Your task to perform on an android device: Go to CNN.com Image 0: 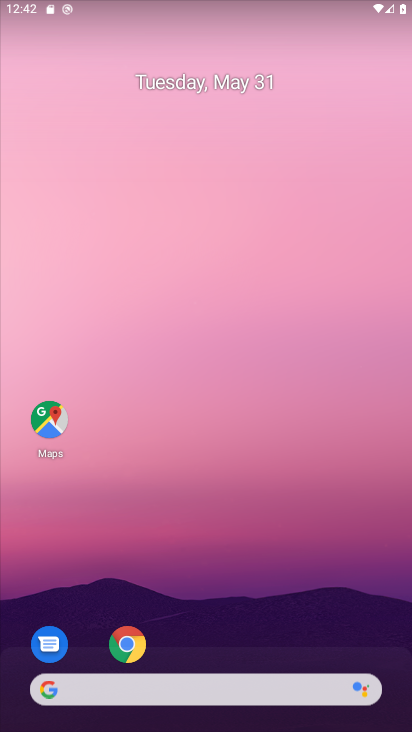
Step 0: click (124, 647)
Your task to perform on an android device: Go to CNN.com Image 1: 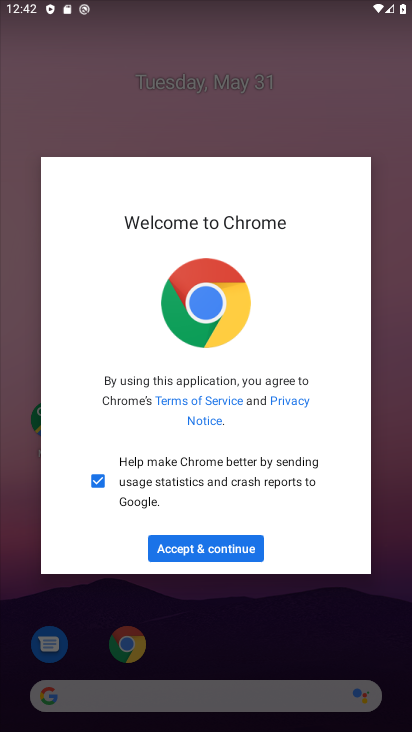
Step 1: click (245, 552)
Your task to perform on an android device: Go to CNN.com Image 2: 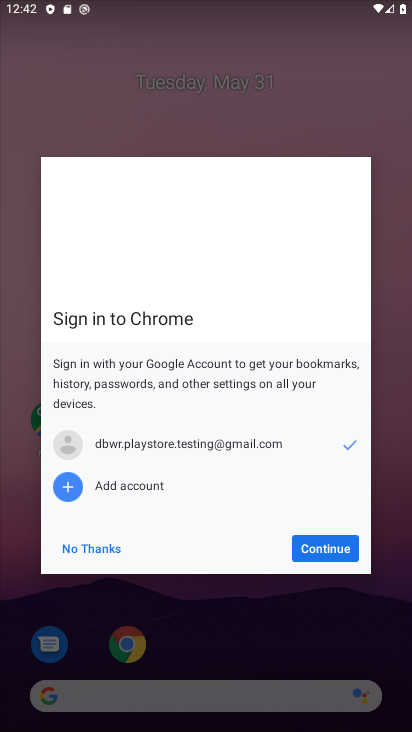
Step 2: click (345, 550)
Your task to perform on an android device: Go to CNN.com Image 3: 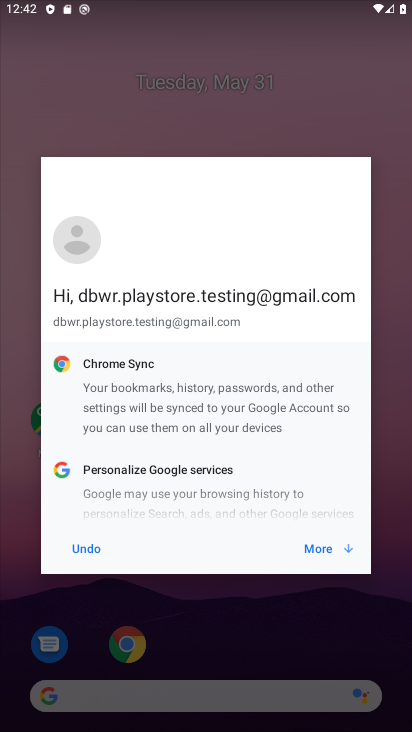
Step 3: click (328, 552)
Your task to perform on an android device: Go to CNN.com Image 4: 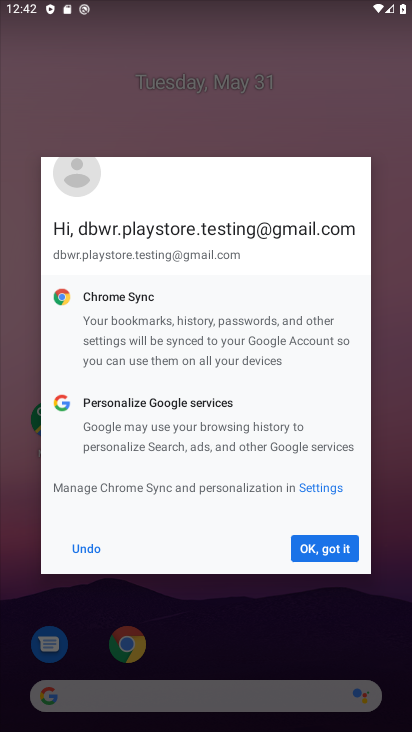
Step 4: click (334, 552)
Your task to perform on an android device: Go to CNN.com Image 5: 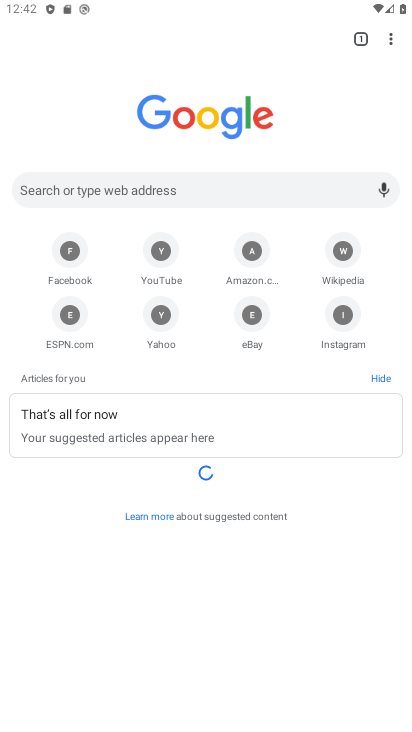
Step 5: click (128, 192)
Your task to perform on an android device: Go to CNN.com Image 6: 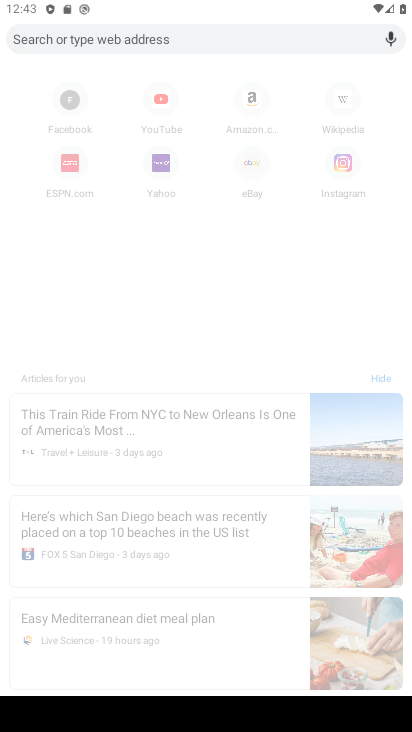
Step 6: type "CNN.com"
Your task to perform on an android device: Go to CNN.com Image 7: 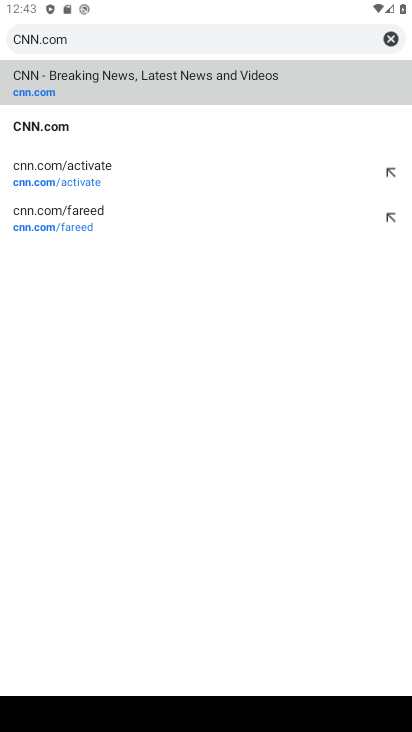
Step 7: click (51, 93)
Your task to perform on an android device: Go to CNN.com Image 8: 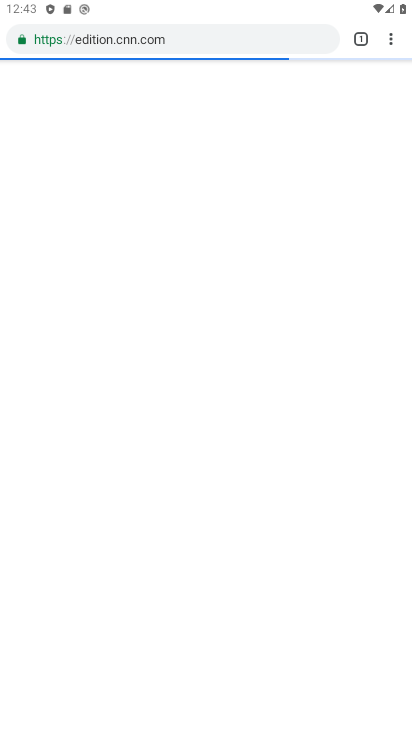
Step 8: task complete